Your task to perform on an android device: refresh tabs in the chrome app Image 0: 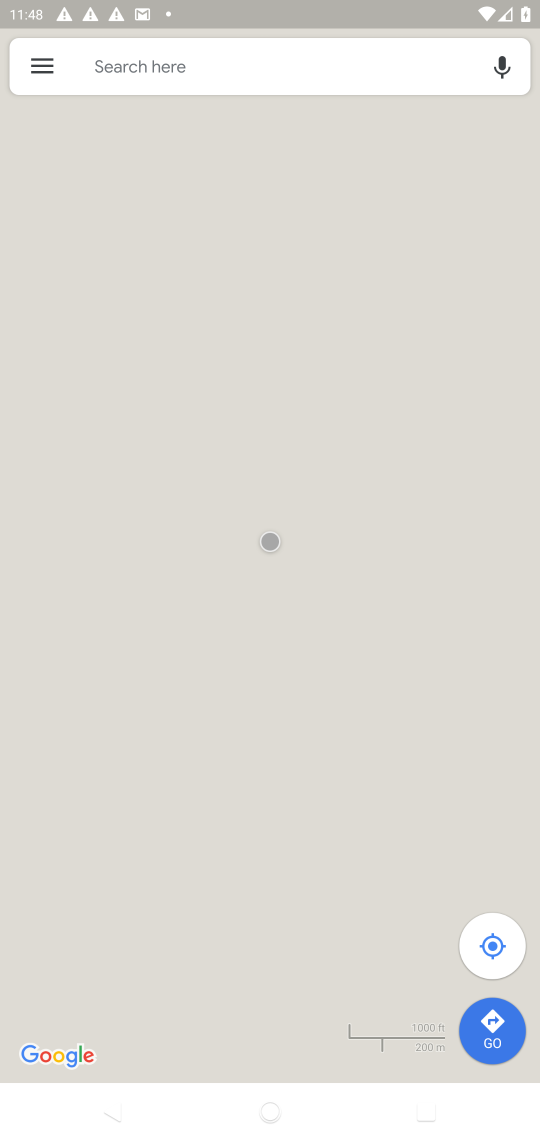
Step 0: press home button
Your task to perform on an android device: refresh tabs in the chrome app Image 1: 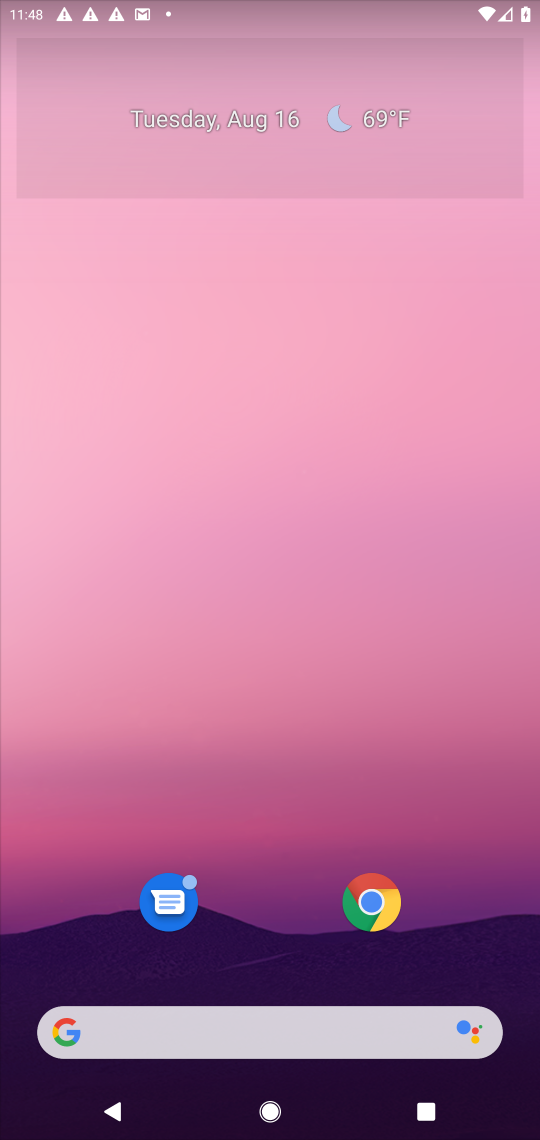
Step 1: click (370, 908)
Your task to perform on an android device: refresh tabs in the chrome app Image 2: 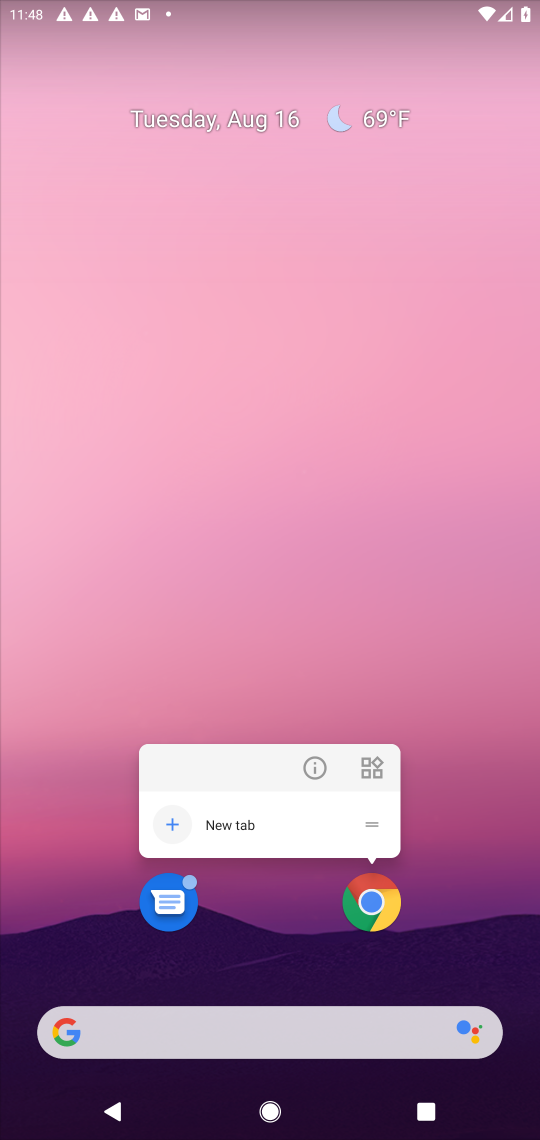
Step 2: click (373, 914)
Your task to perform on an android device: refresh tabs in the chrome app Image 3: 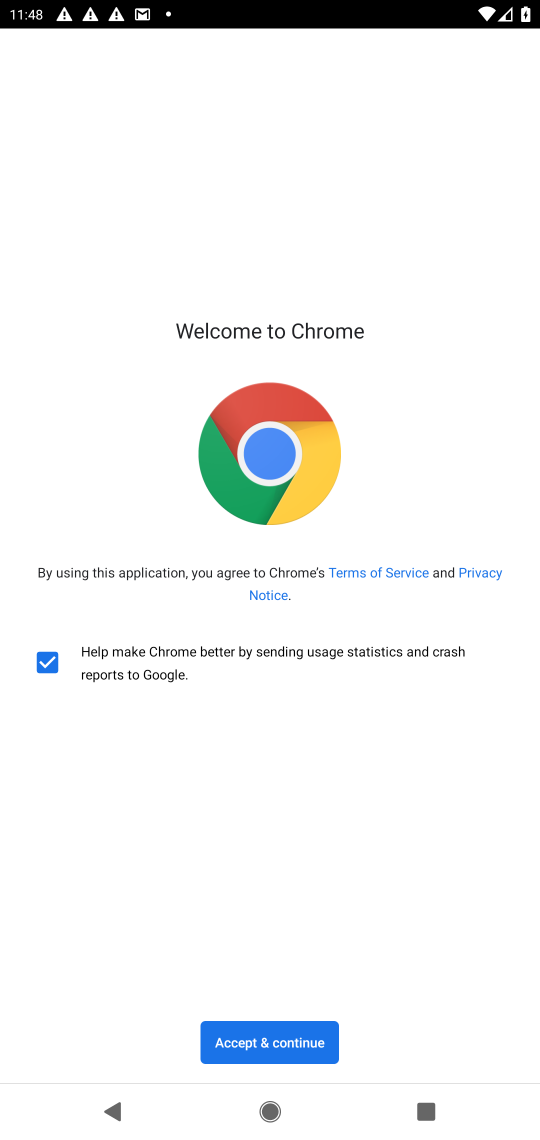
Step 3: click (239, 1024)
Your task to perform on an android device: refresh tabs in the chrome app Image 4: 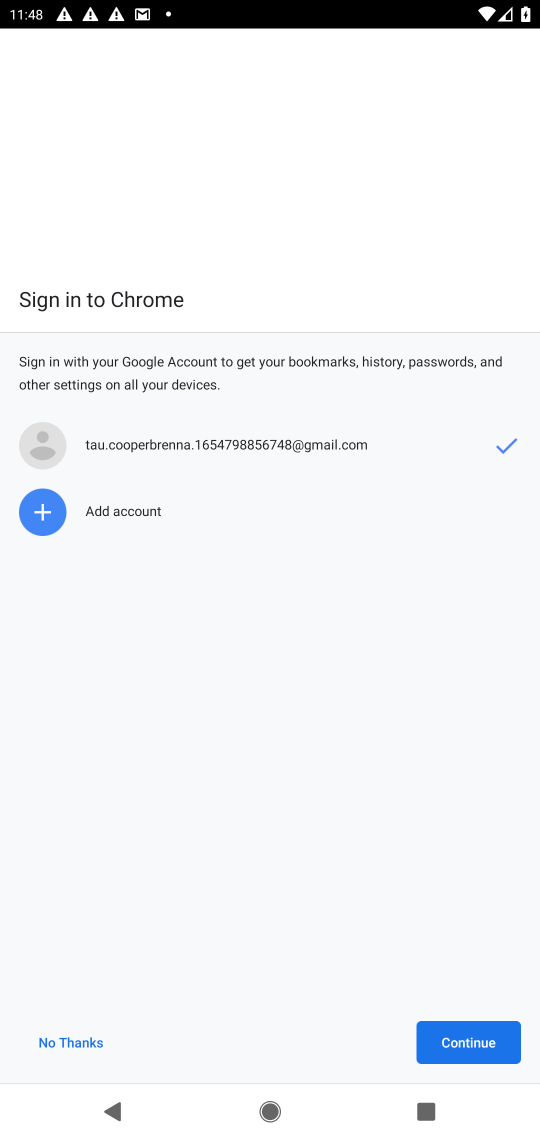
Step 4: click (451, 1035)
Your task to perform on an android device: refresh tabs in the chrome app Image 5: 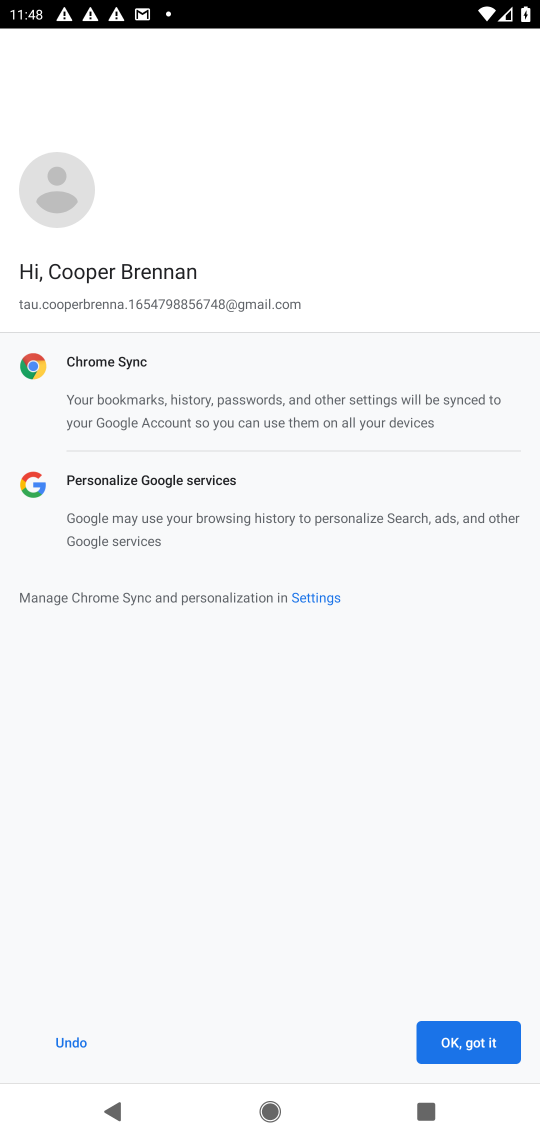
Step 5: click (451, 1035)
Your task to perform on an android device: refresh tabs in the chrome app Image 6: 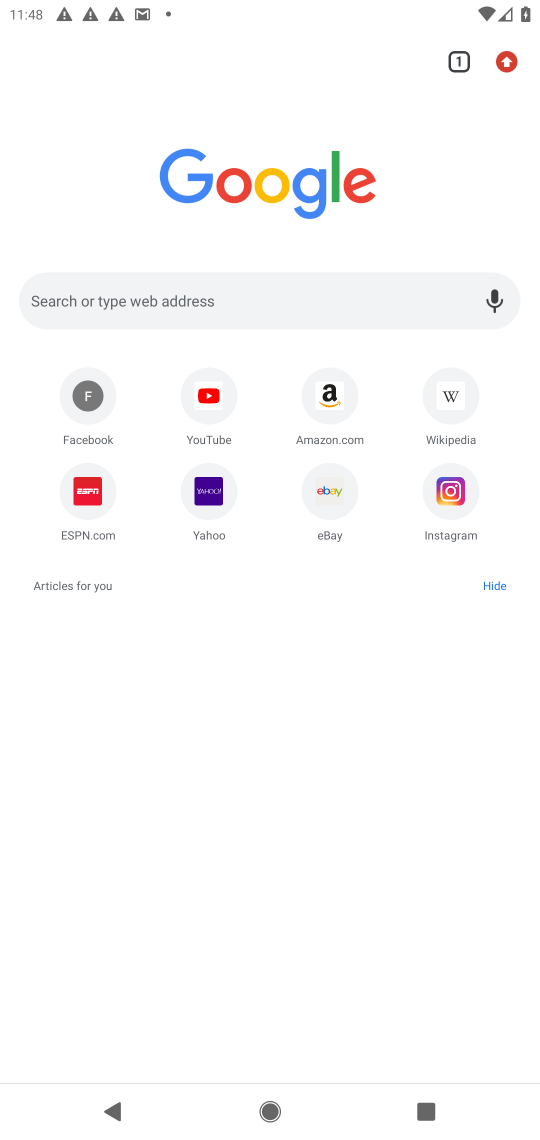
Step 6: click (512, 63)
Your task to perform on an android device: refresh tabs in the chrome app Image 7: 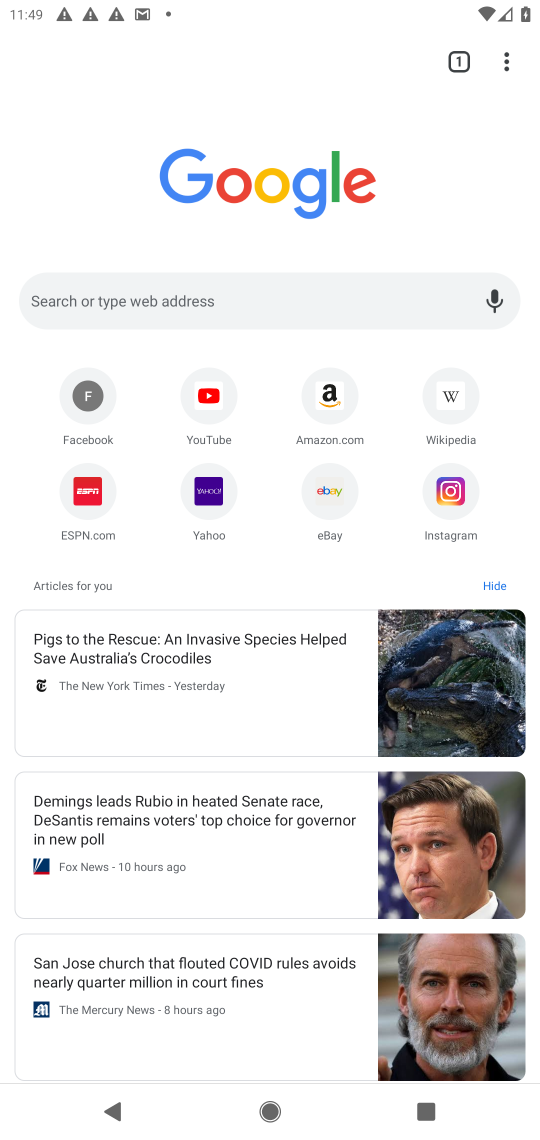
Step 7: click (510, 53)
Your task to perform on an android device: refresh tabs in the chrome app Image 8: 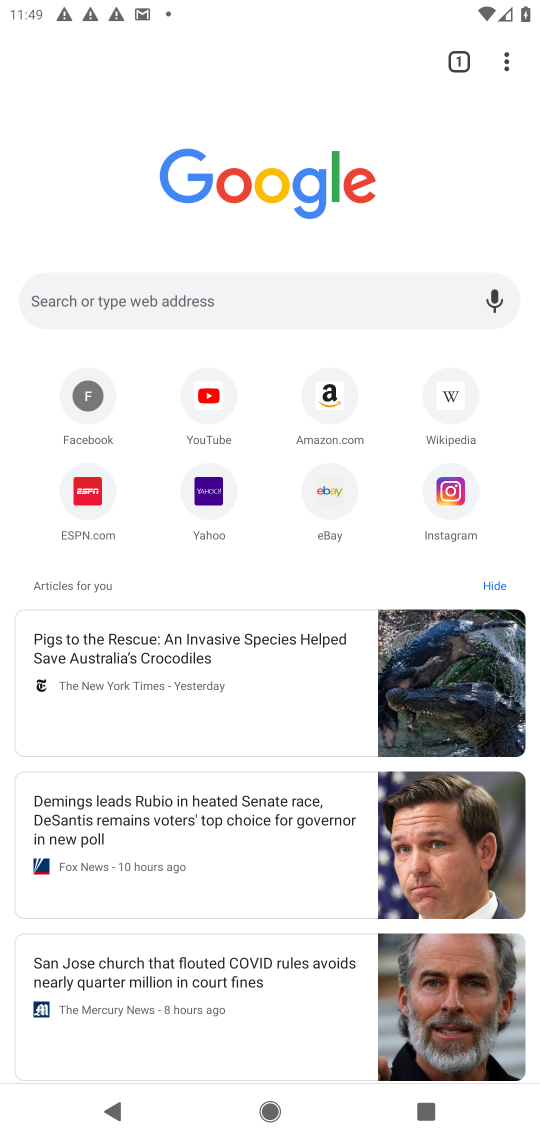
Step 8: click (512, 57)
Your task to perform on an android device: refresh tabs in the chrome app Image 9: 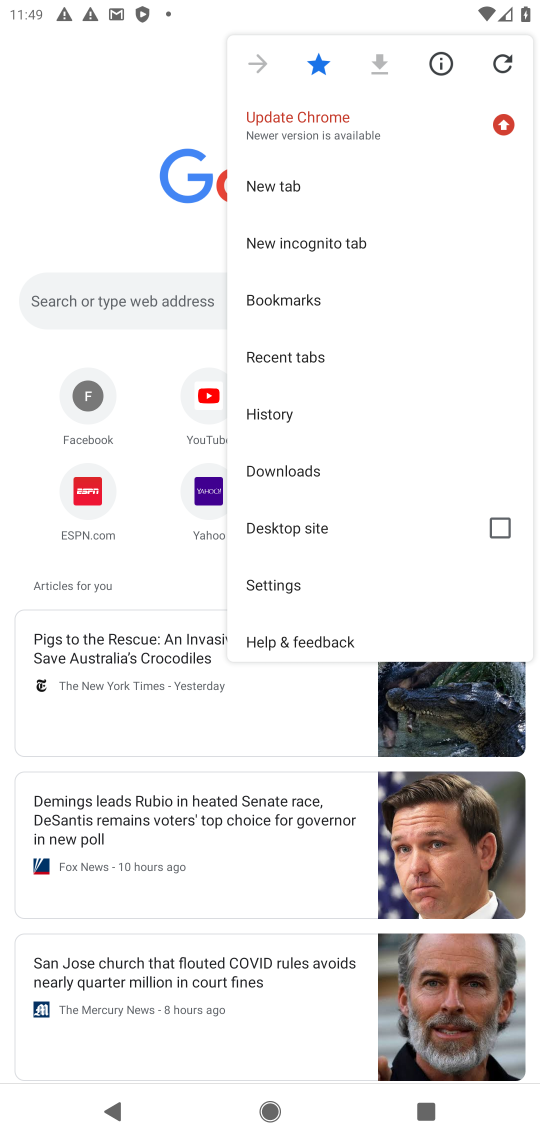
Step 9: click (504, 60)
Your task to perform on an android device: refresh tabs in the chrome app Image 10: 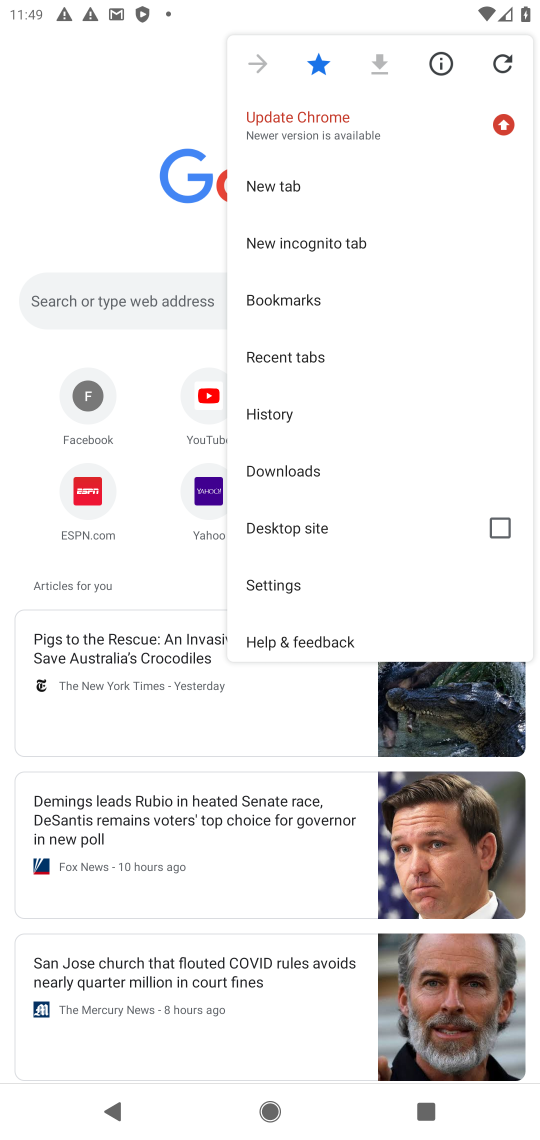
Step 10: click (494, 50)
Your task to perform on an android device: refresh tabs in the chrome app Image 11: 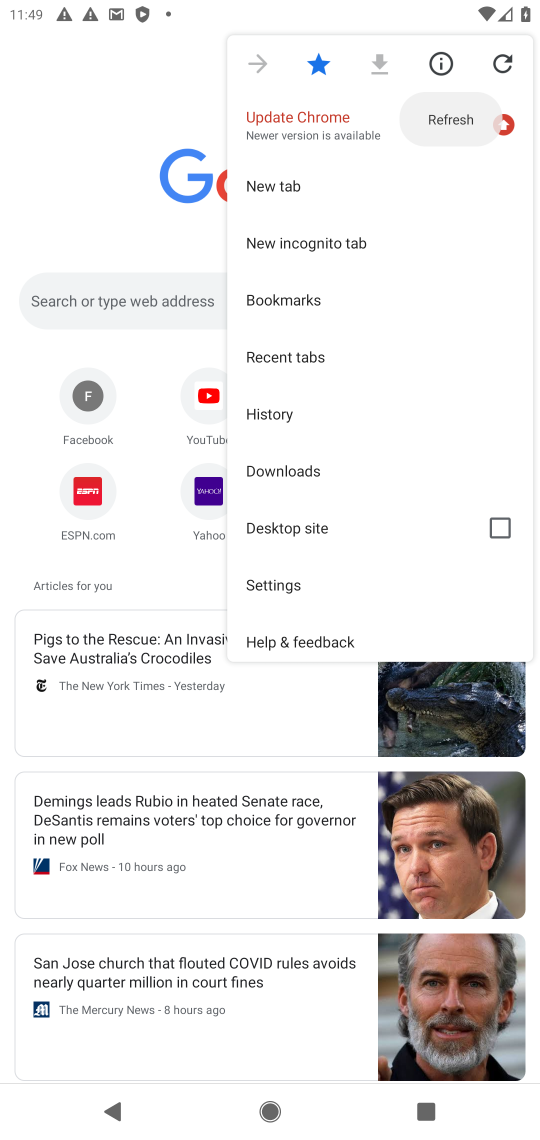
Step 11: click (502, 49)
Your task to perform on an android device: refresh tabs in the chrome app Image 12: 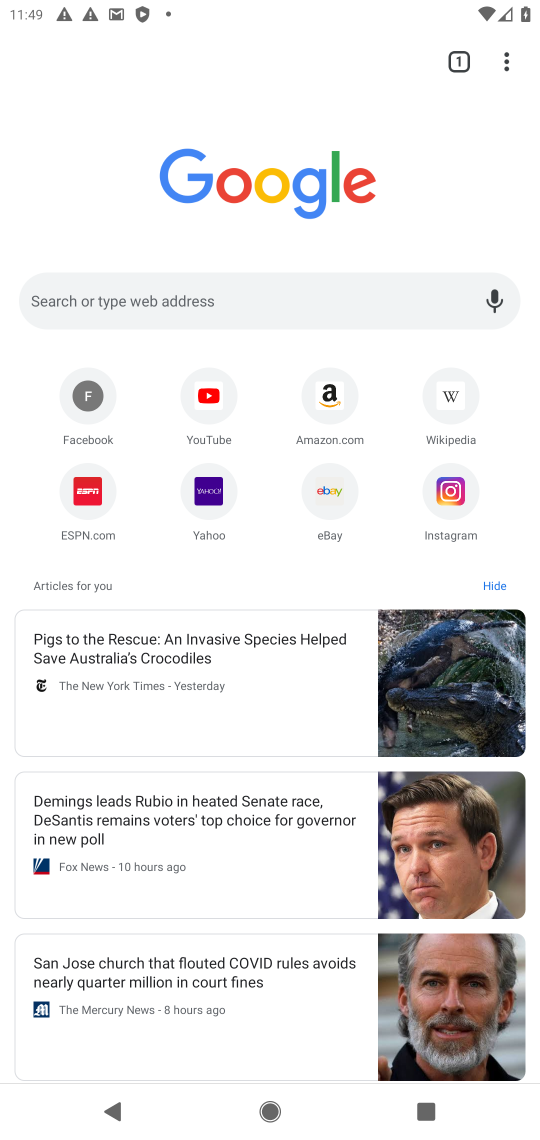
Step 12: task complete